Your task to perform on an android device: open app "Calculator" (install if not already installed) Image 0: 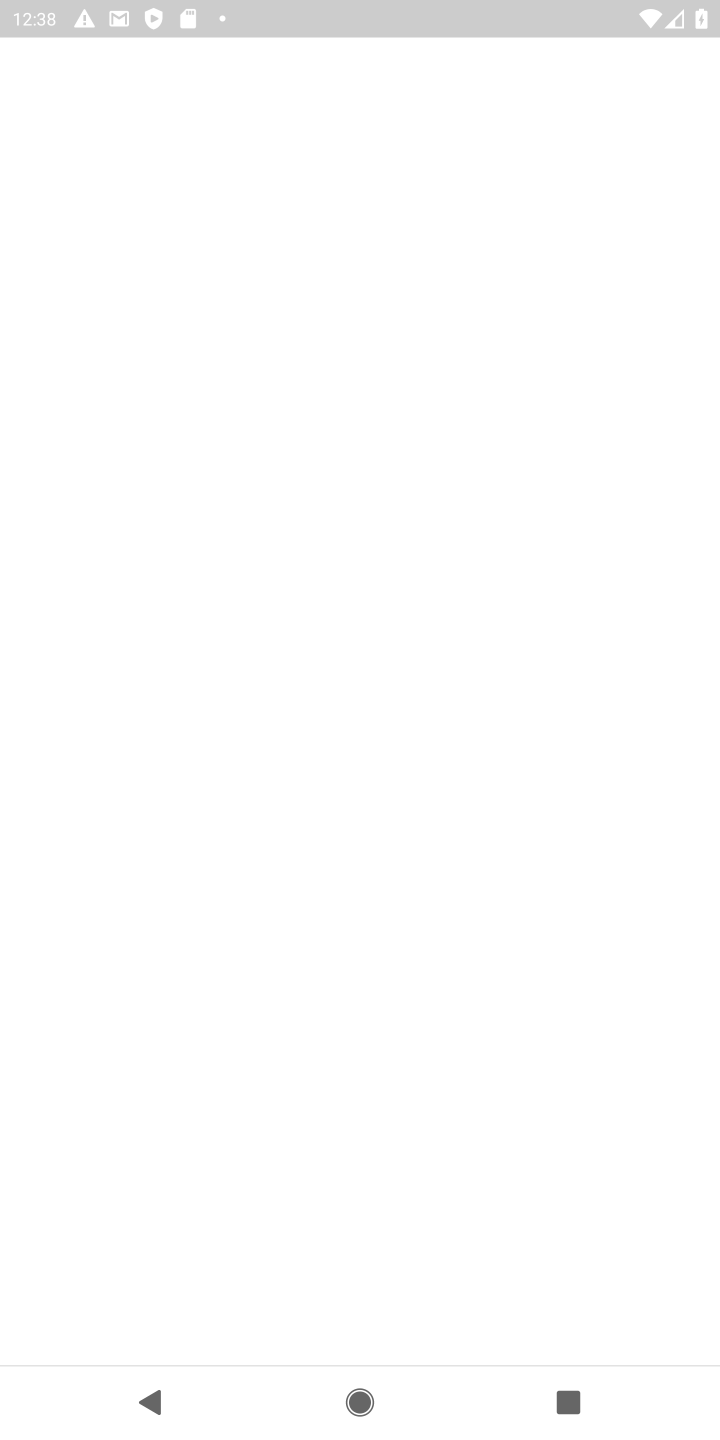
Step 0: press back button
Your task to perform on an android device: open app "Calculator" (install if not already installed) Image 1: 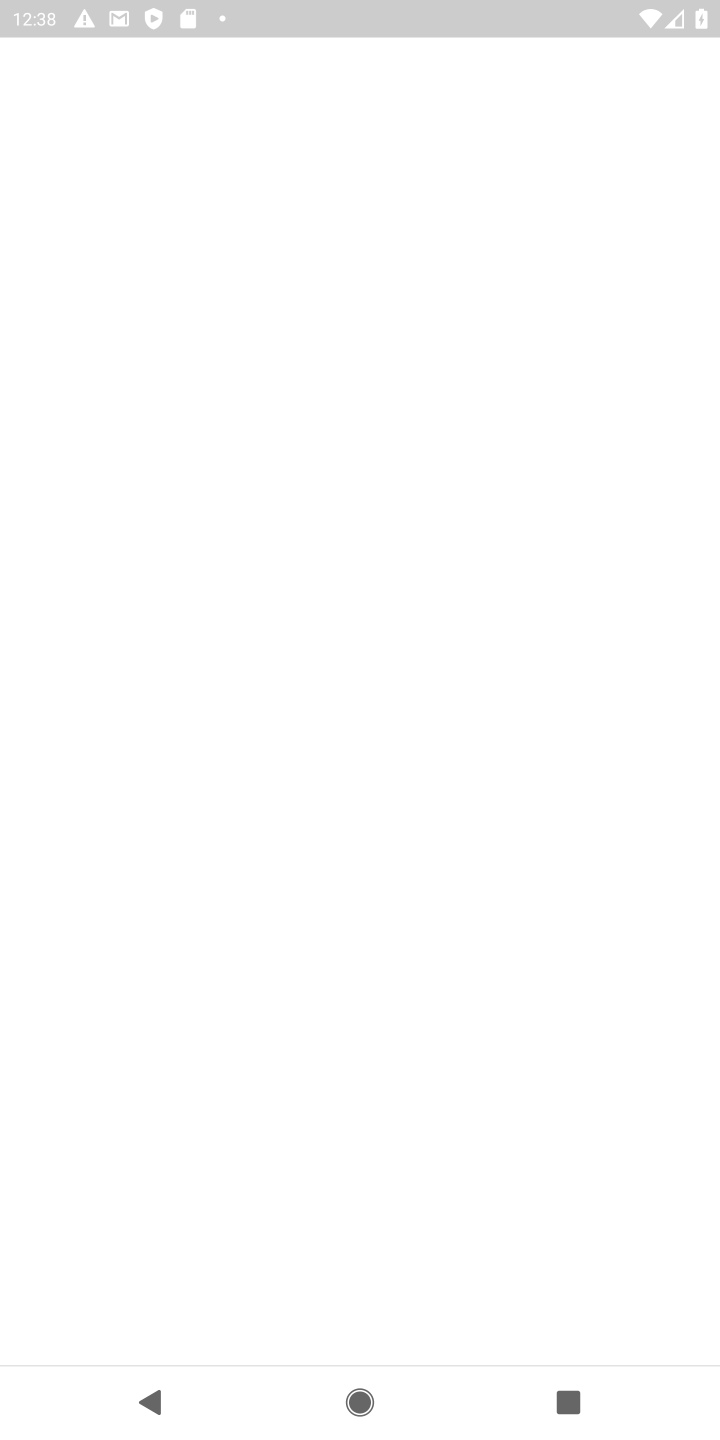
Step 1: press back button
Your task to perform on an android device: open app "Calculator" (install if not already installed) Image 2: 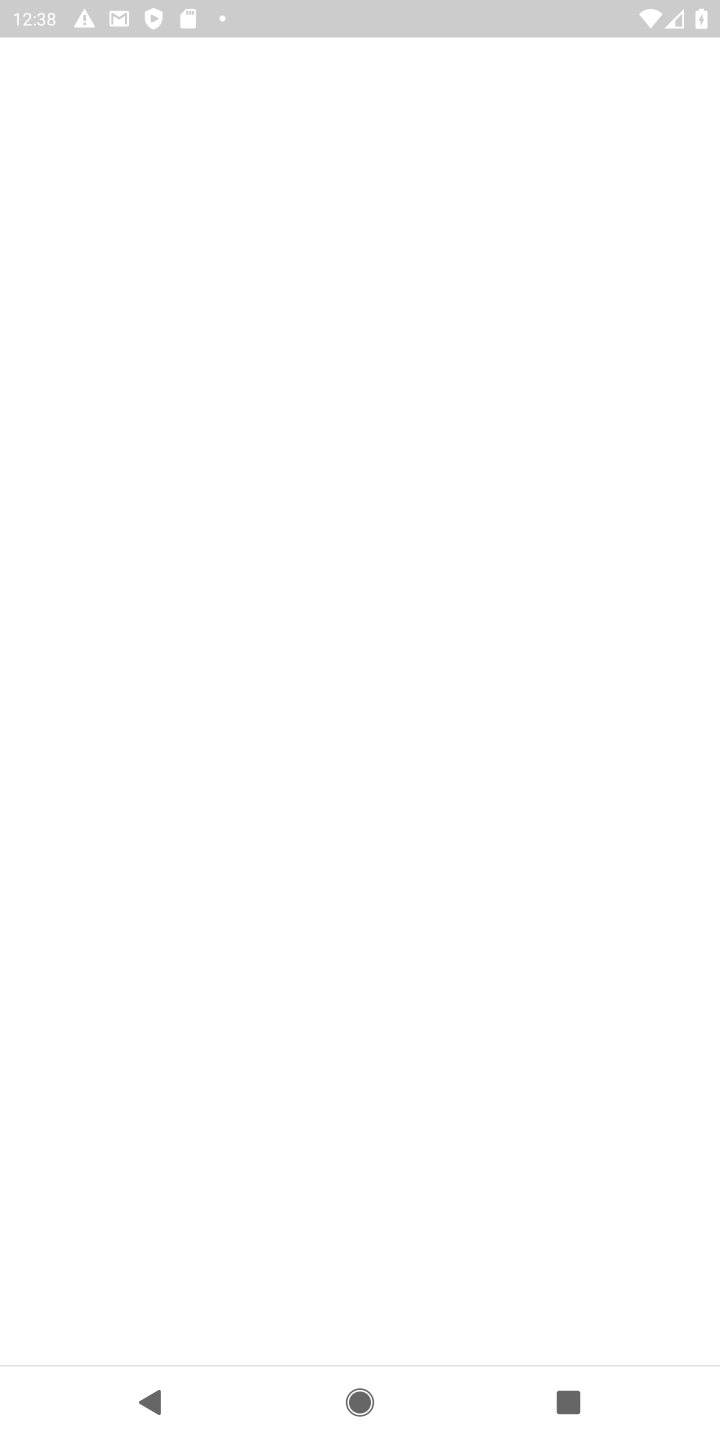
Step 2: press back button
Your task to perform on an android device: open app "Calculator" (install if not already installed) Image 3: 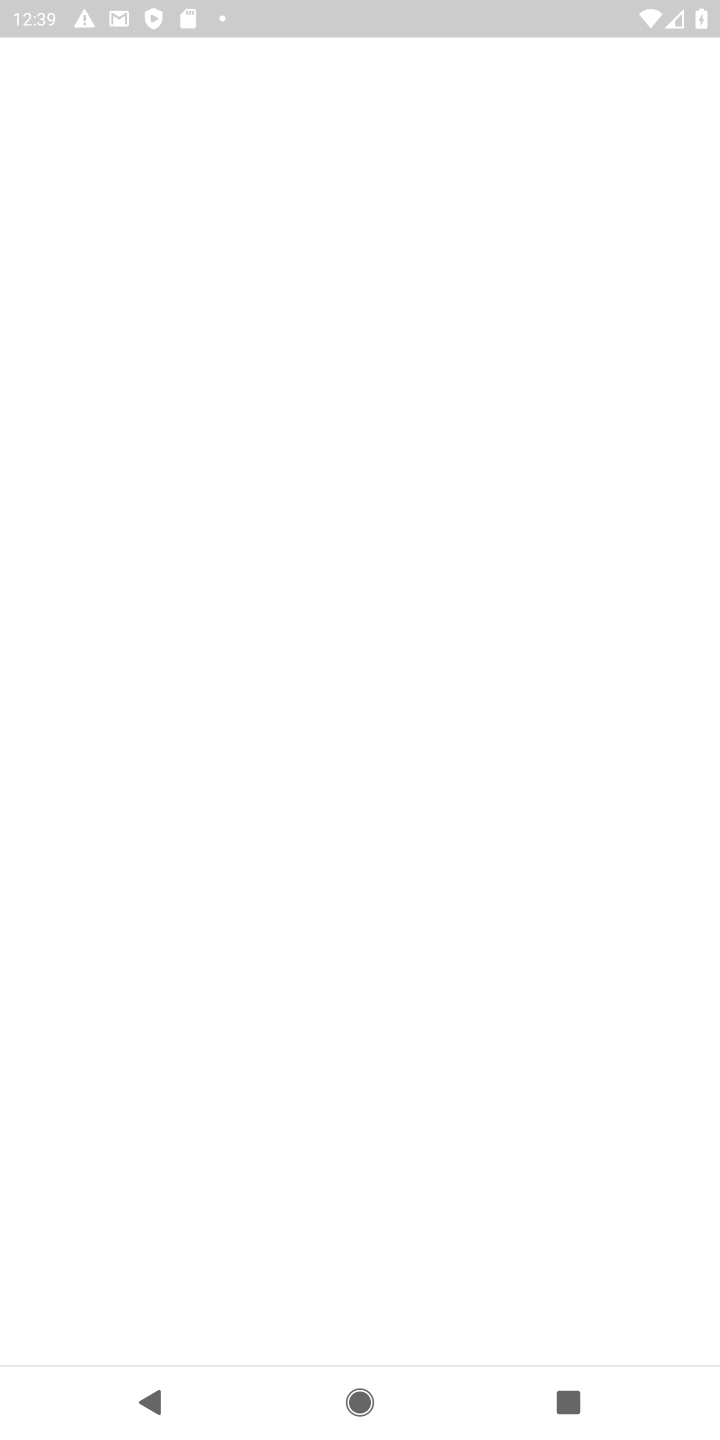
Step 3: press home button
Your task to perform on an android device: open app "Calculator" (install if not already installed) Image 4: 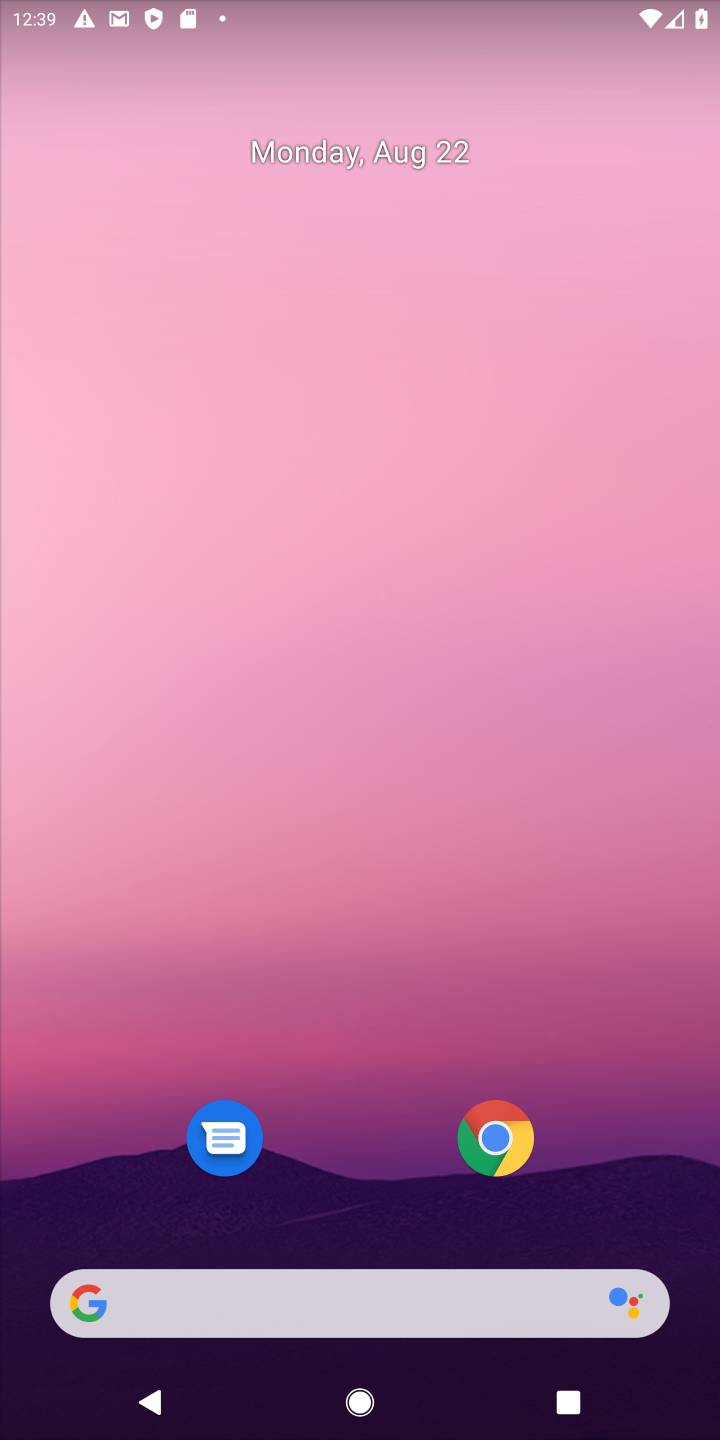
Step 4: drag from (549, 207) to (570, 15)
Your task to perform on an android device: open app "Calculator" (install if not already installed) Image 5: 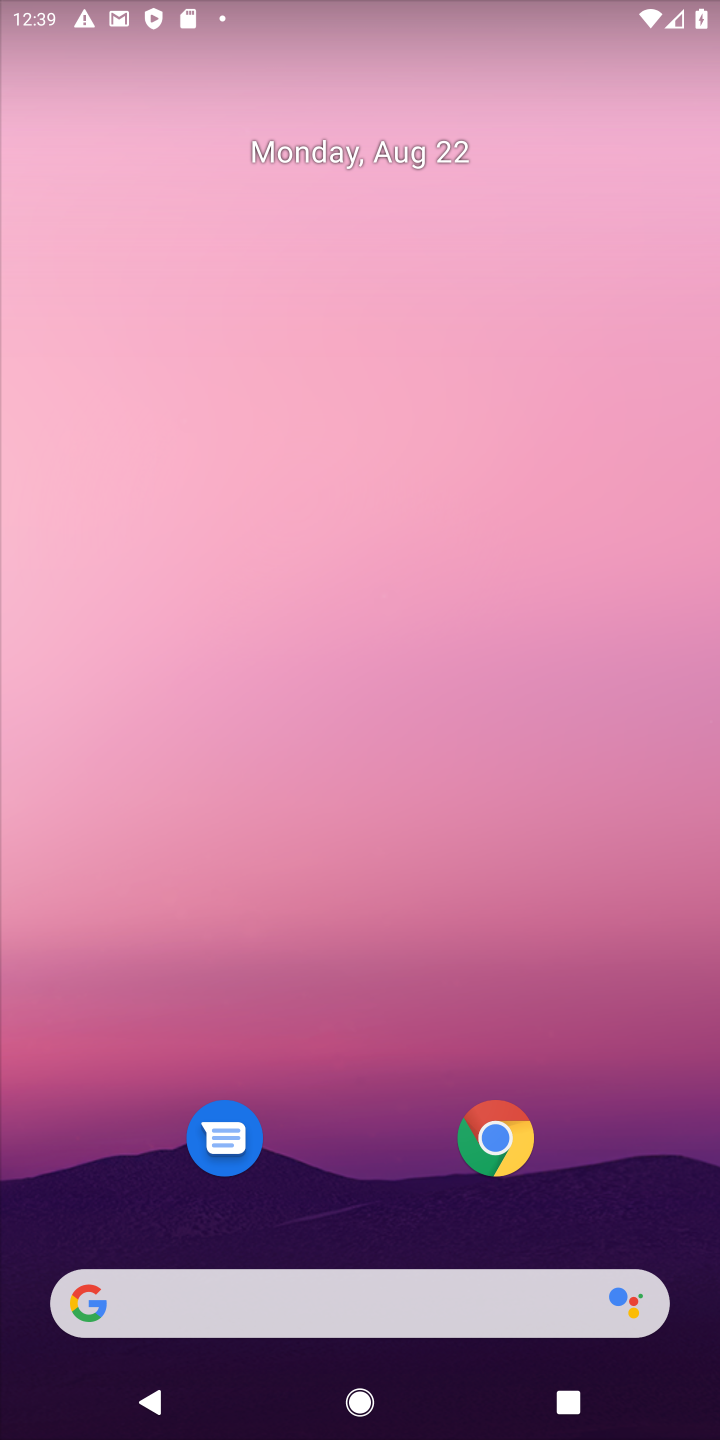
Step 5: drag from (352, 1228) to (592, 150)
Your task to perform on an android device: open app "Calculator" (install if not already installed) Image 6: 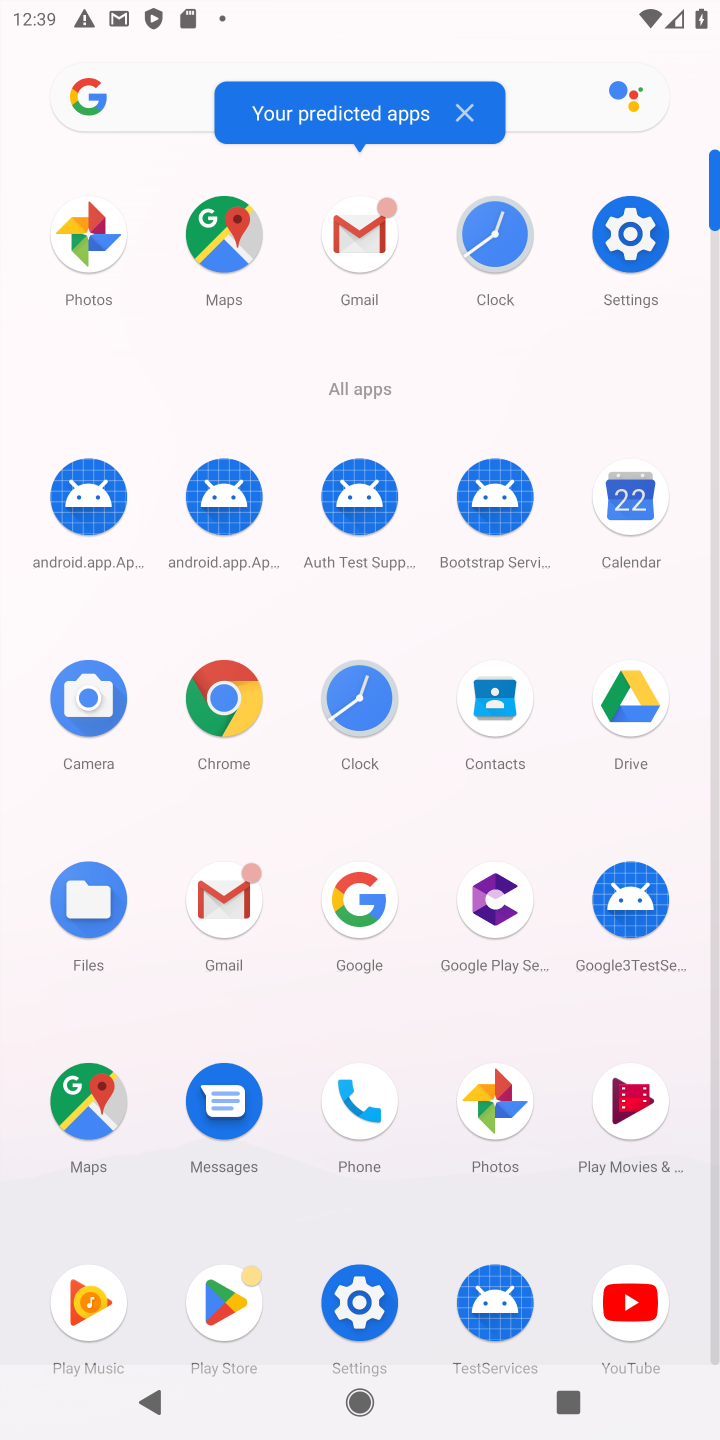
Step 6: click (229, 1297)
Your task to perform on an android device: open app "Calculator" (install if not already installed) Image 7: 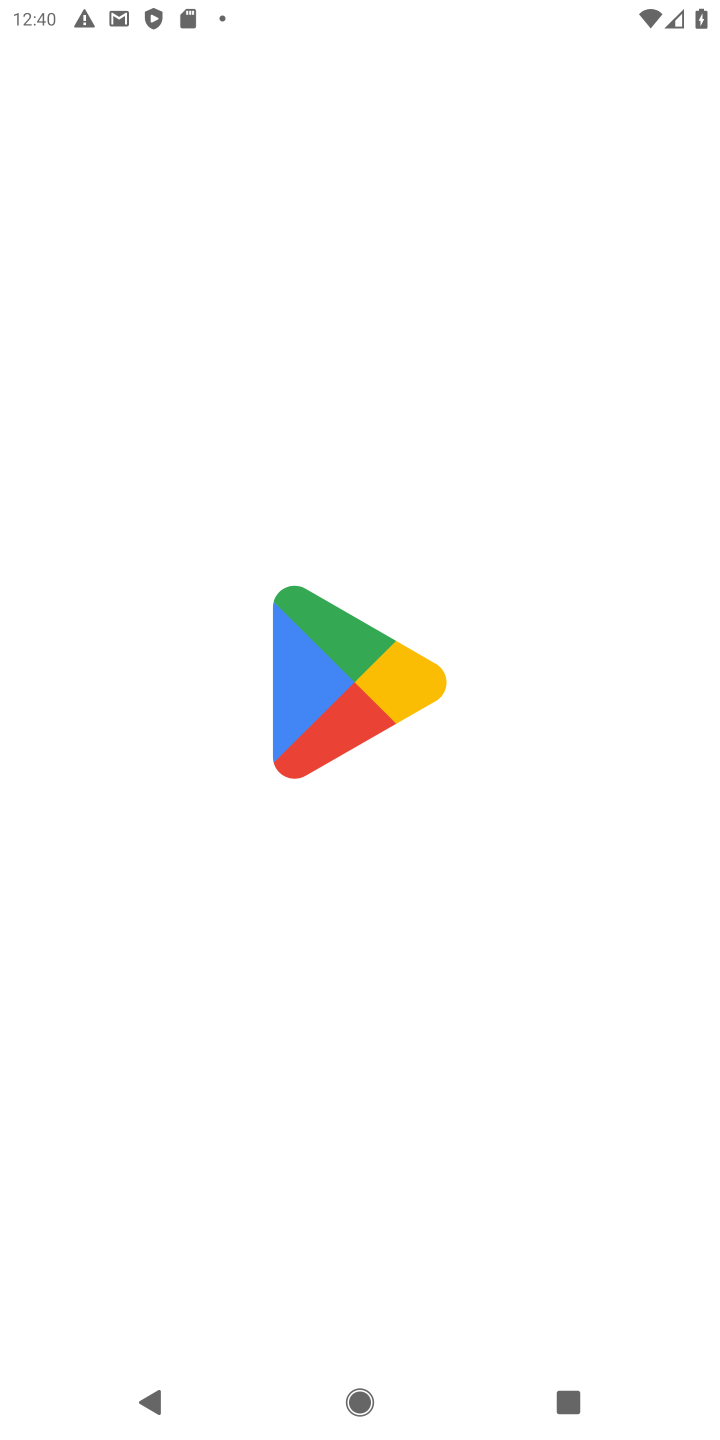
Step 7: click (330, 760)
Your task to perform on an android device: open app "Calculator" (install if not already installed) Image 8: 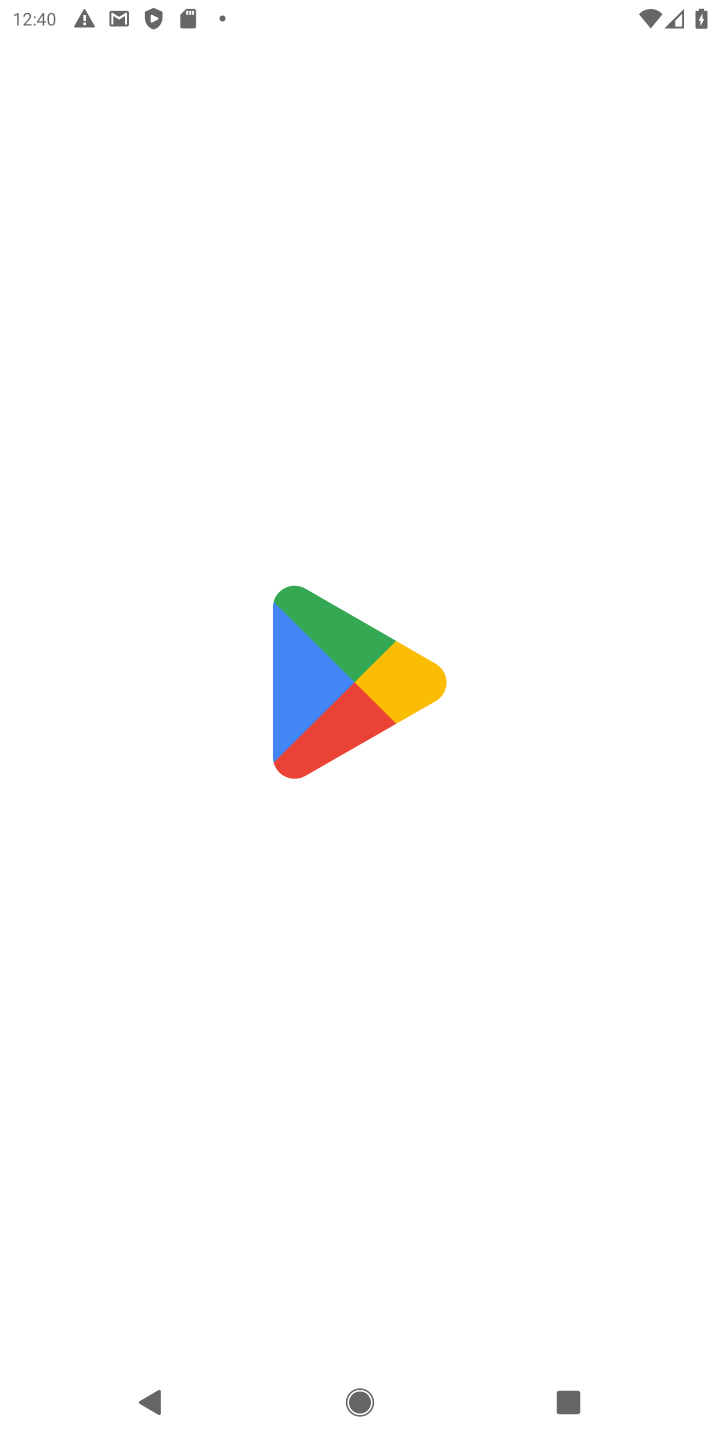
Step 8: click (346, 680)
Your task to perform on an android device: open app "Calculator" (install if not already installed) Image 9: 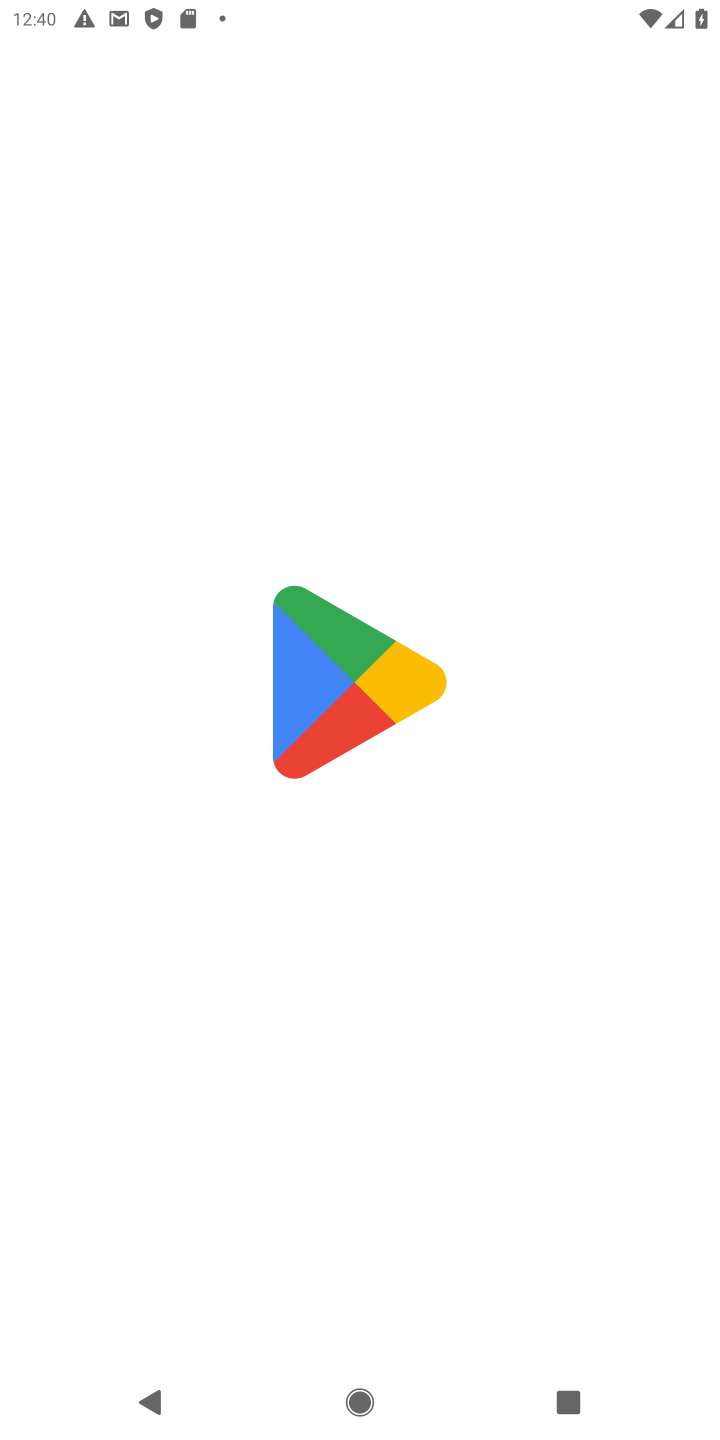
Step 9: click (356, 688)
Your task to perform on an android device: open app "Calculator" (install if not already installed) Image 10: 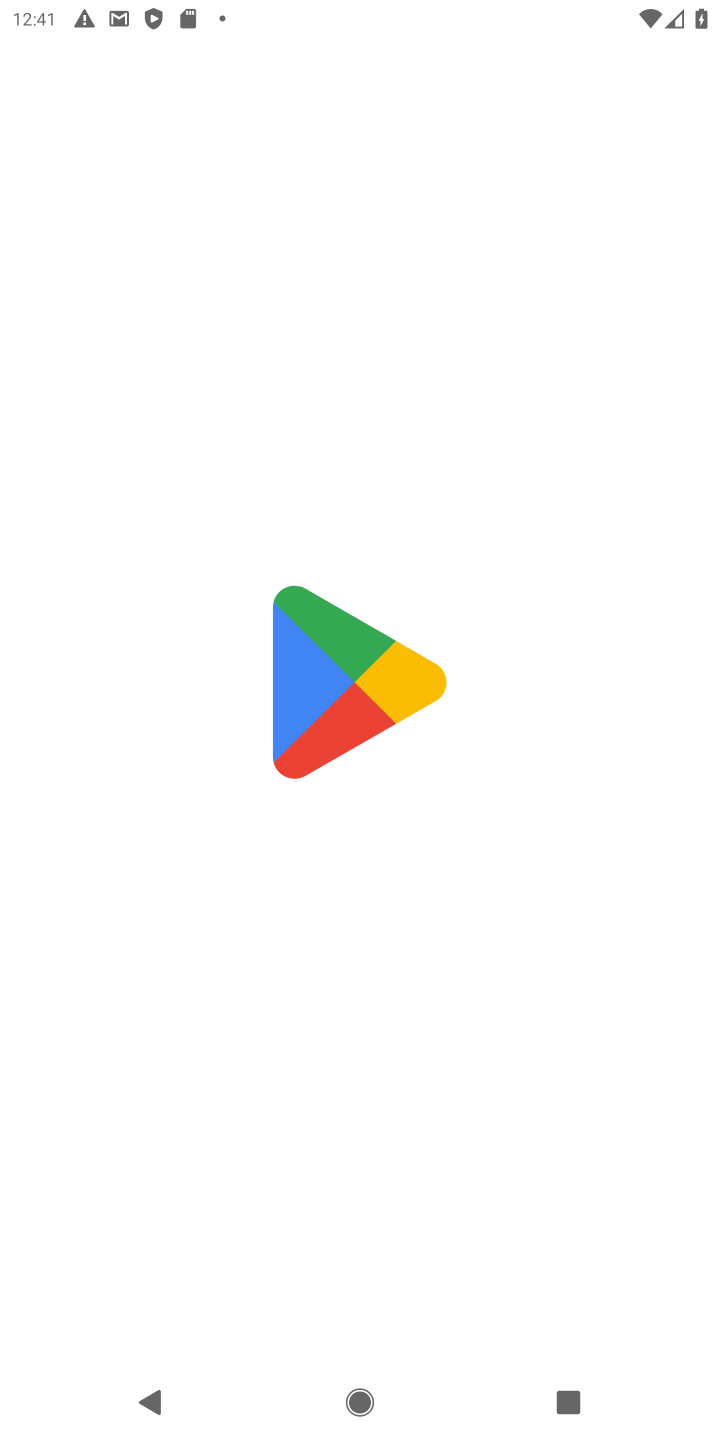
Step 10: click (340, 8)
Your task to perform on an android device: open app "Calculator" (install if not already installed) Image 11: 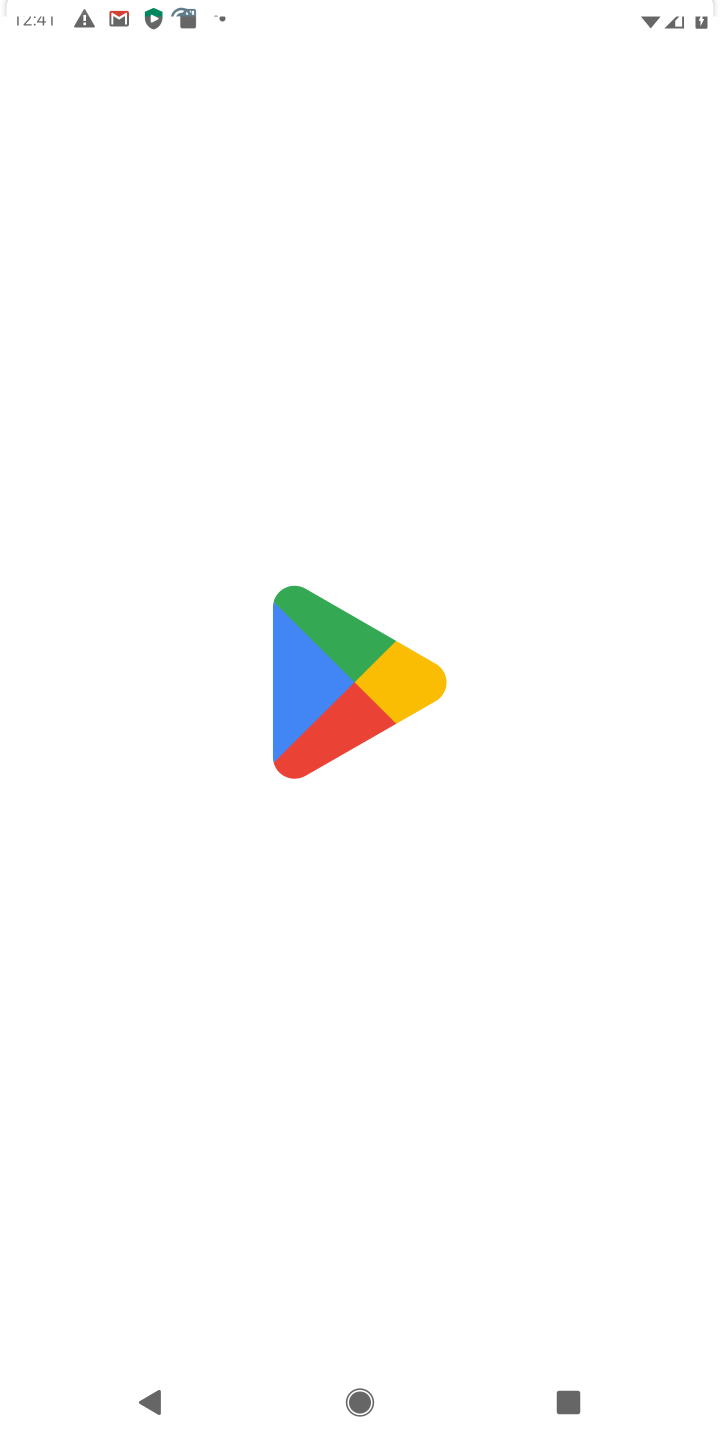
Step 11: click (414, 857)
Your task to perform on an android device: open app "Calculator" (install if not already installed) Image 12: 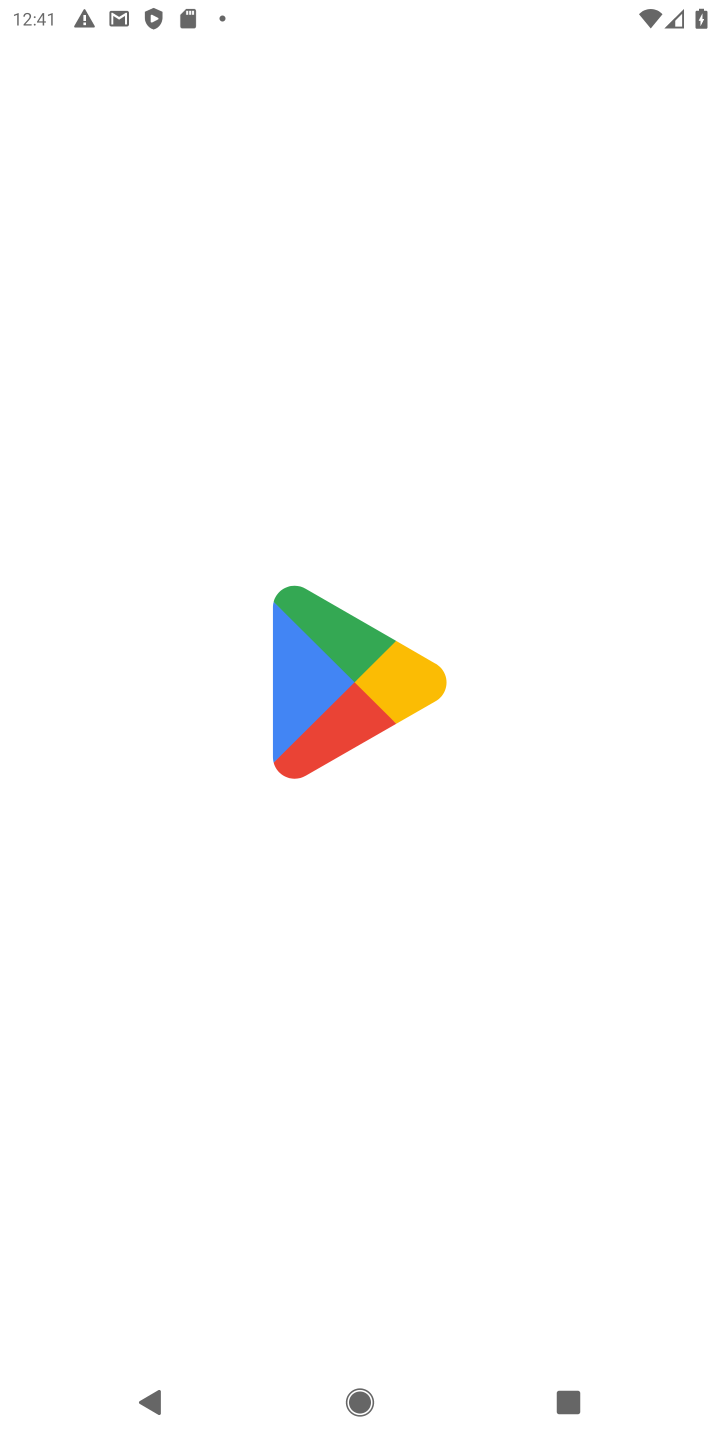
Step 12: task complete